Your task to perform on an android device: show emergency info Image 0: 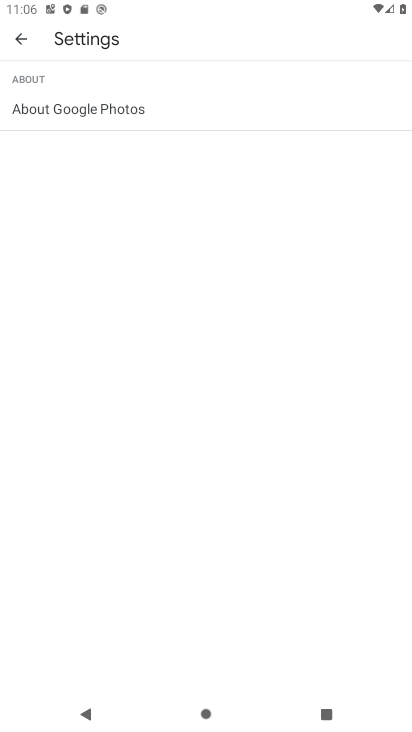
Step 0: press back button
Your task to perform on an android device: show emergency info Image 1: 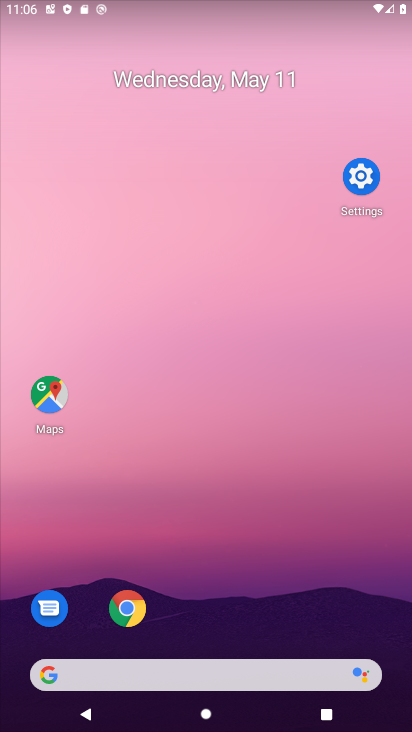
Step 1: drag from (347, 632) to (186, 153)
Your task to perform on an android device: show emergency info Image 2: 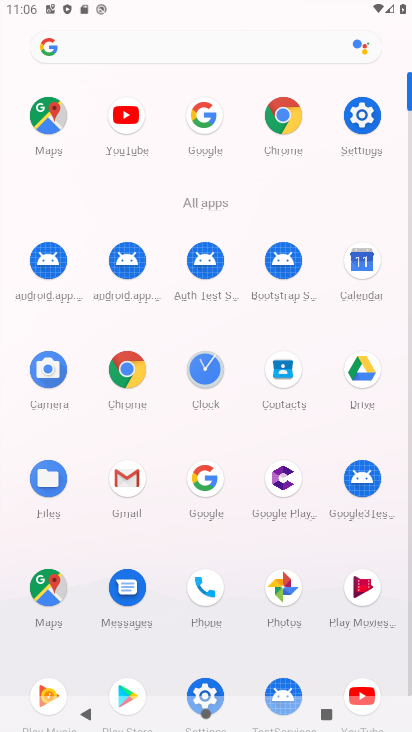
Step 2: click (364, 109)
Your task to perform on an android device: show emergency info Image 3: 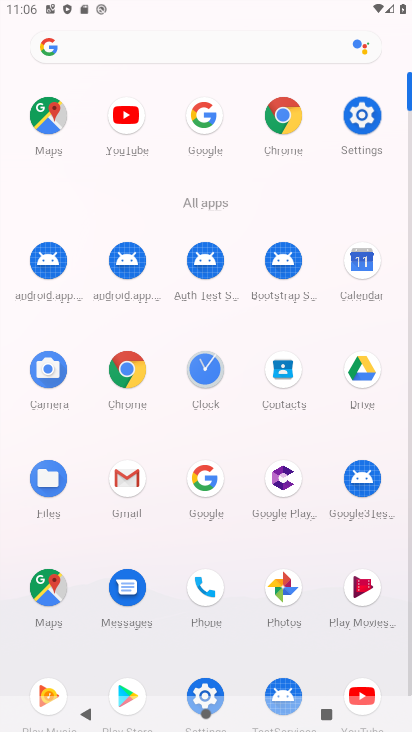
Step 3: click (363, 110)
Your task to perform on an android device: show emergency info Image 4: 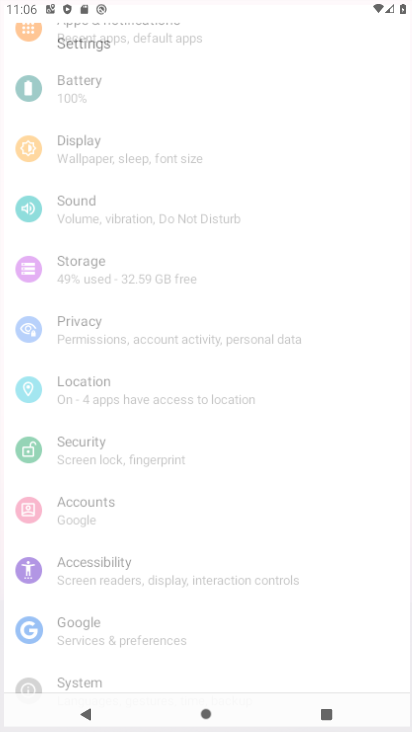
Step 4: click (363, 110)
Your task to perform on an android device: show emergency info Image 5: 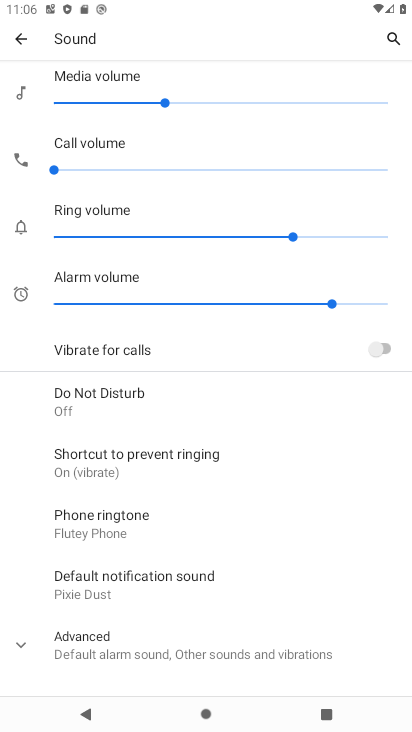
Step 5: click (15, 43)
Your task to perform on an android device: show emergency info Image 6: 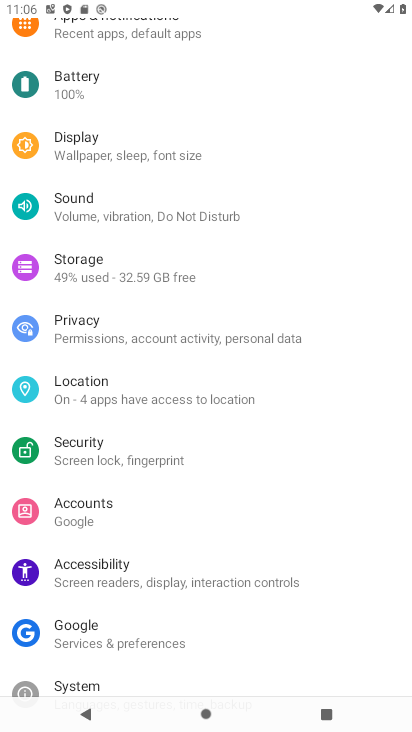
Step 6: drag from (137, 592) to (97, 132)
Your task to perform on an android device: show emergency info Image 7: 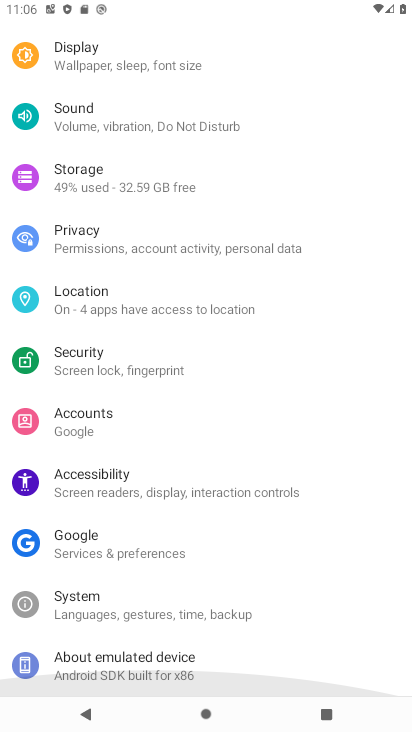
Step 7: drag from (160, 396) to (147, 16)
Your task to perform on an android device: show emergency info Image 8: 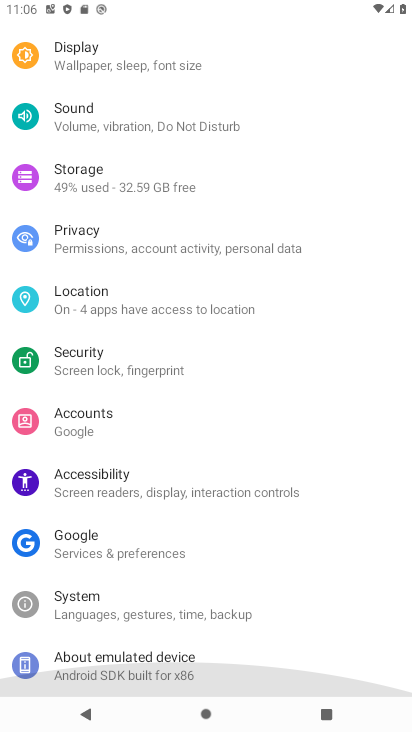
Step 8: drag from (176, 458) to (178, 151)
Your task to perform on an android device: show emergency info Image 9: 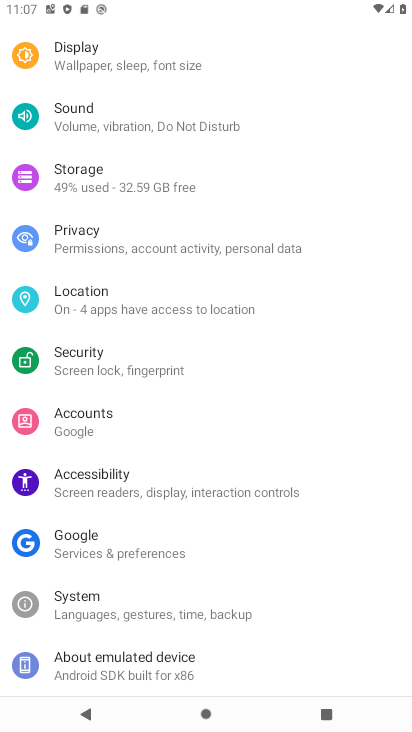
Step 9: click (127, 650)
Your task to perform on an android device: show emergency info Image 10: 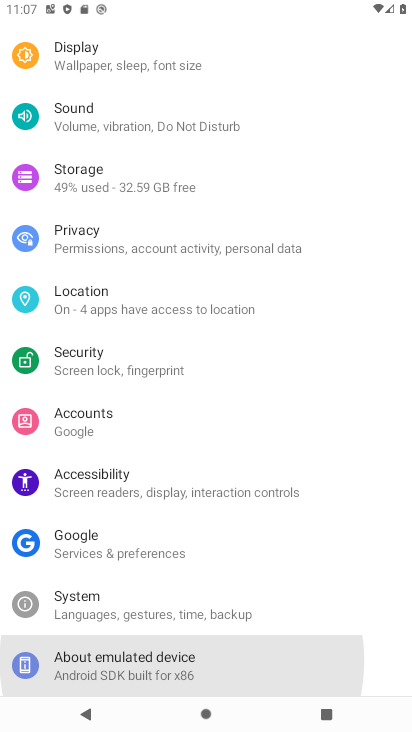
Step 10: click (127, 651)
Your task to perform on an android device: show emergency info Image 11: 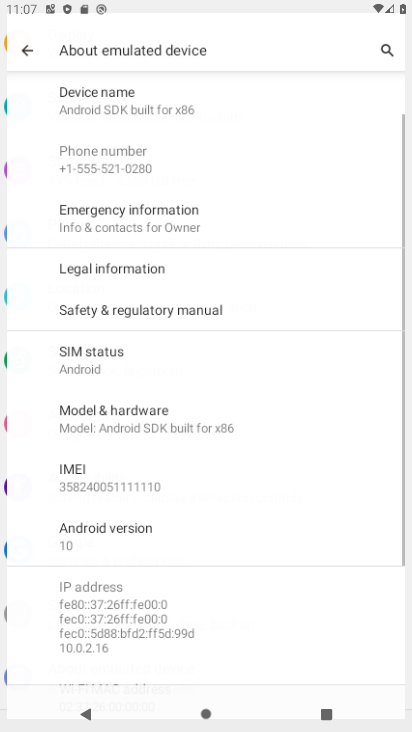
Step 11: click (128, 652)
Your task to perform on an android device: show emergency info Image 12: 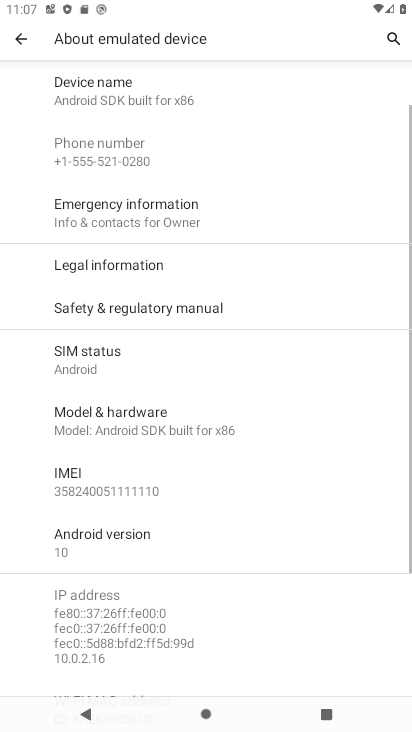
Step 12: drag from (216, 543) to (138, 163)
Your task to perform on an android device: show emergency info Image 13: 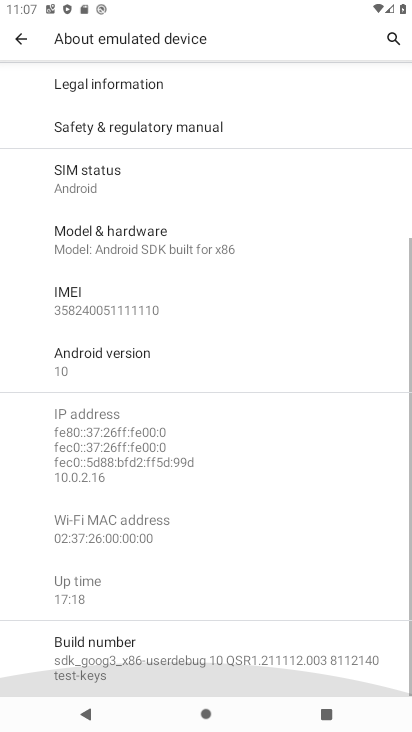
Step 13: drag from (168, 402) to (121, 172)
Your task to perform on an android device: show emergency info Image 14: 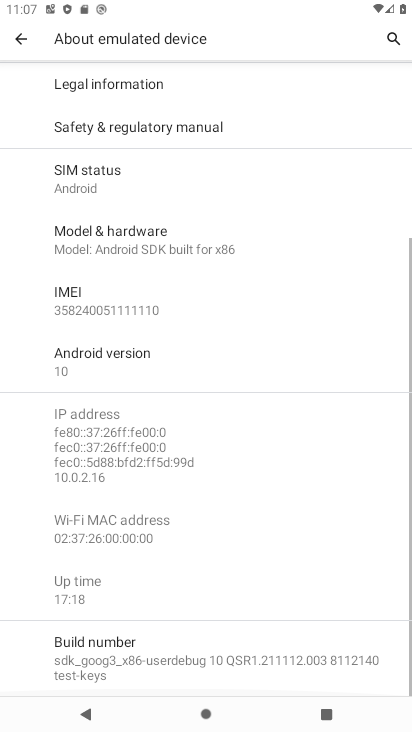
Step 14: drag from (126, 177) to (193, 620)
Your task to perform on an android device: show emergency info Image 15: 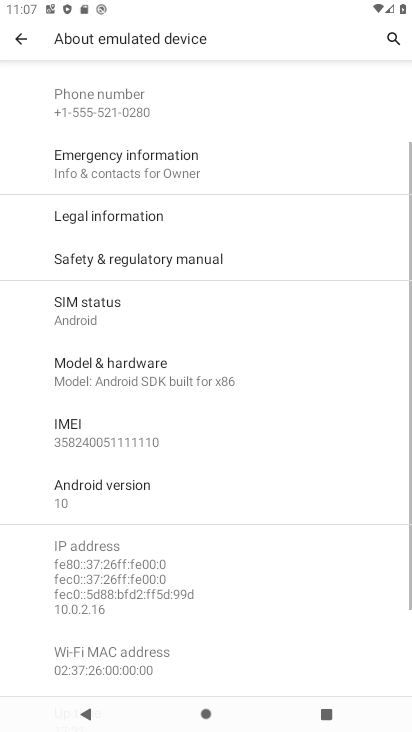
Step 15: click (85, 161)
Your task to perform on an android device: show emergency info Image 16: 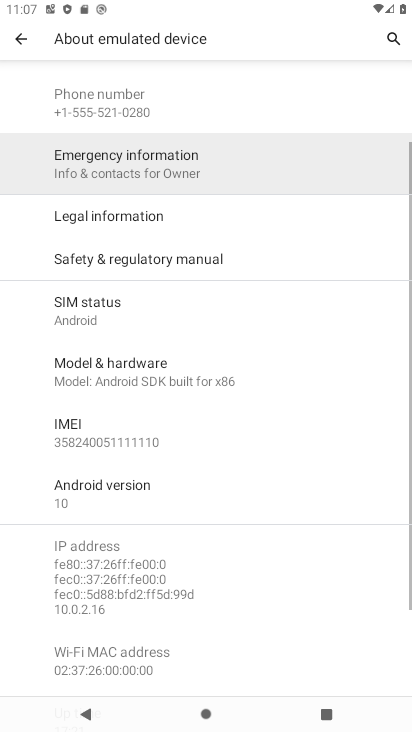
Step 16: click (93, 130)
Your task to perform on an android device: show emergency info Image 17: 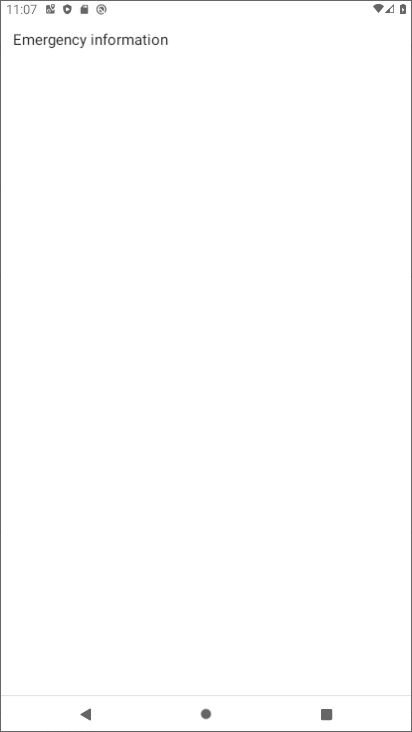
Step 17: click (121, 160)
Your task to perform on an android device: show emergency info Image 18: 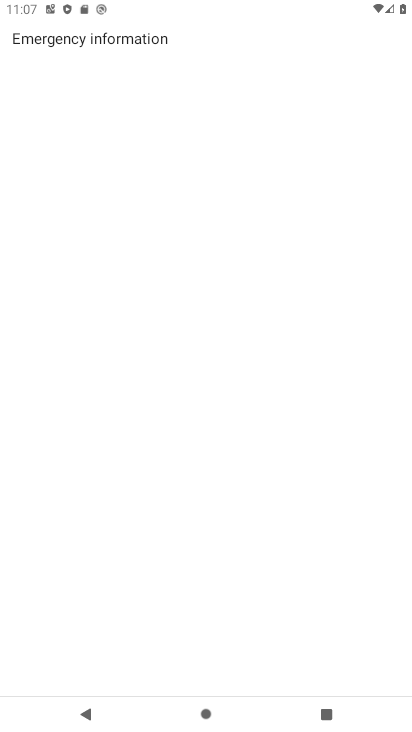
Step 18: click (121, 160)
Your task to perform on an android device: show emergency info Image 19: 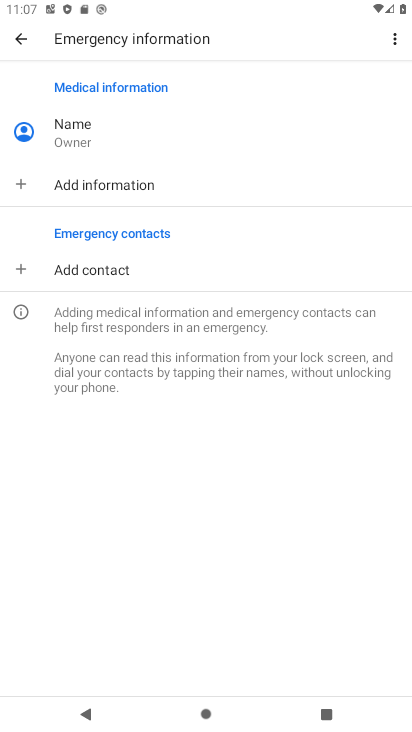
Step 19: task complete